Your task to perform on an android device: Open wifi settings Image 0: 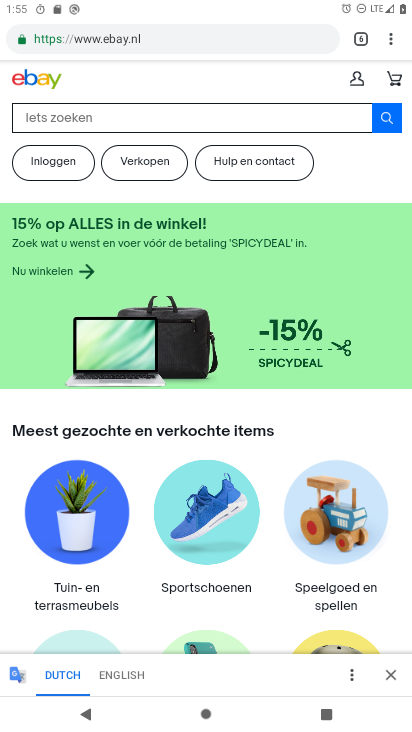
Step 0: press home button
Your task to perform on an android device: Open wifi settings Image 1: 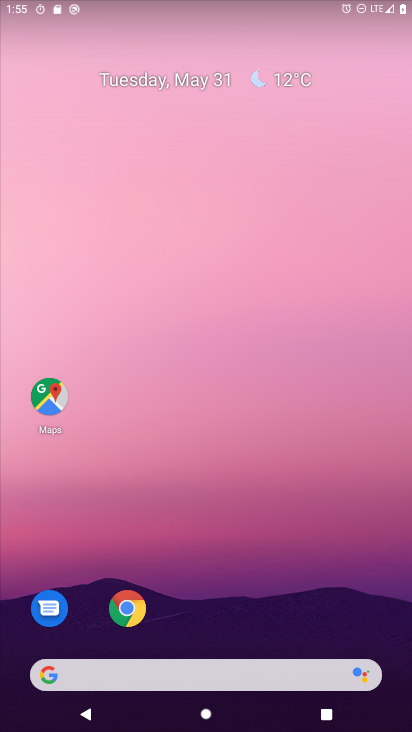
Step 1: drag from (272, 636) to (260, 7)
Your task to perform on an android device: Open wifi settings Image 2: 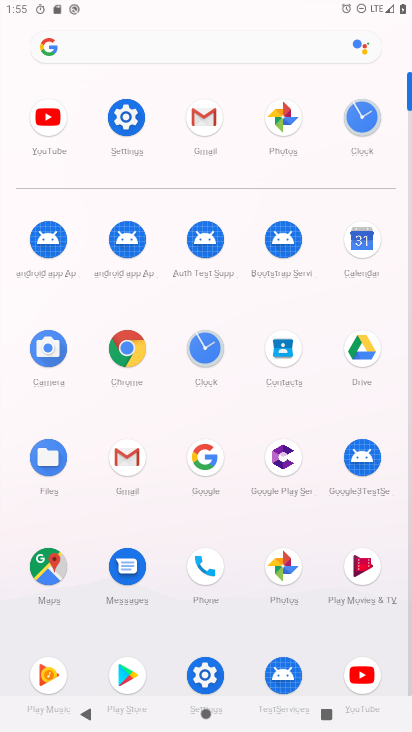
Step 2: click (121, 123)
Your task to perform on an android device: Open wifi settings Image 3: 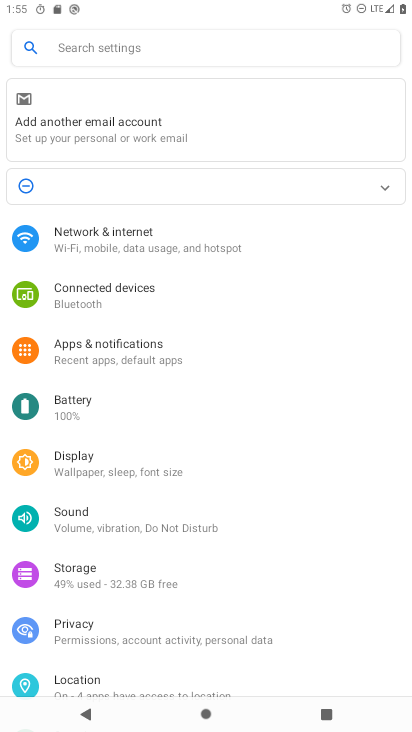
Step 3: click (106, 241)
Your task to perform on an android device: Open wifi settings Image 4: 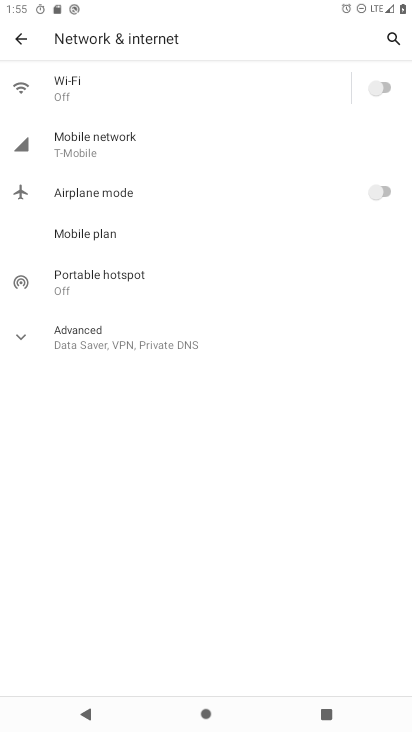
Step 4: click (33, 91)
Your task to perform on an android device: Open wifi settings Image 5: 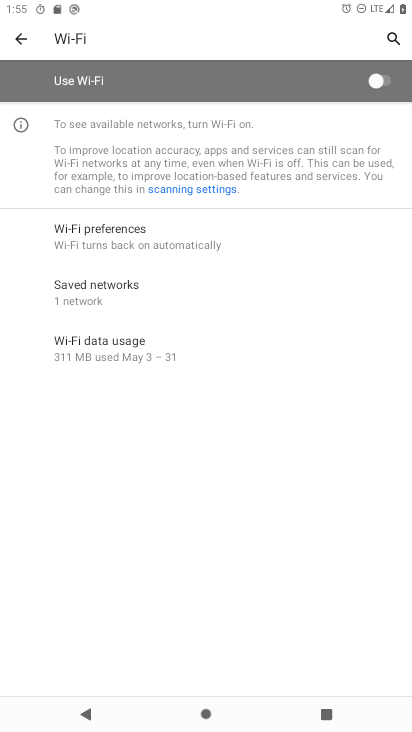
Step 5: task complete